Your task to perform on an android device: turn notification dots off Image 0: 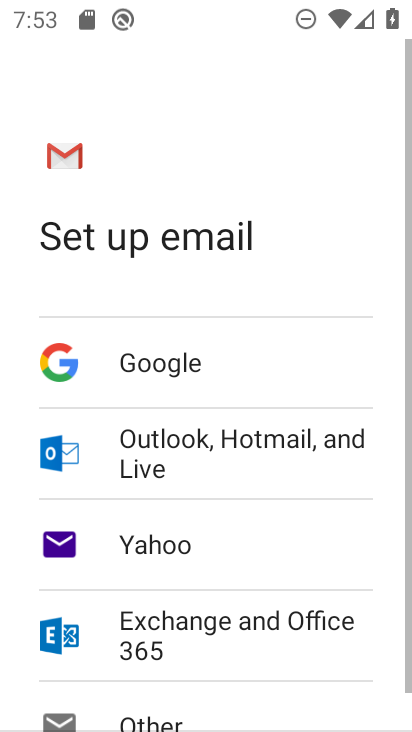
Step 0: press back button
Your task to perform on an android device: turn notification dots off Image 1: 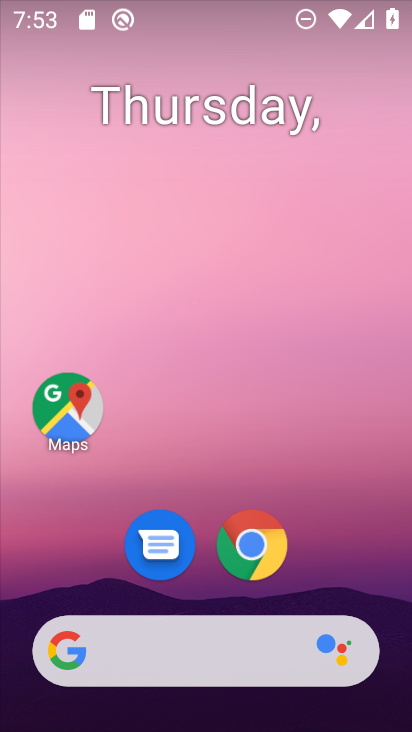
Step 1: drag from (317, 549) to (258, 191)
Your task to perform on an android device: turn notification dots off Image 2: 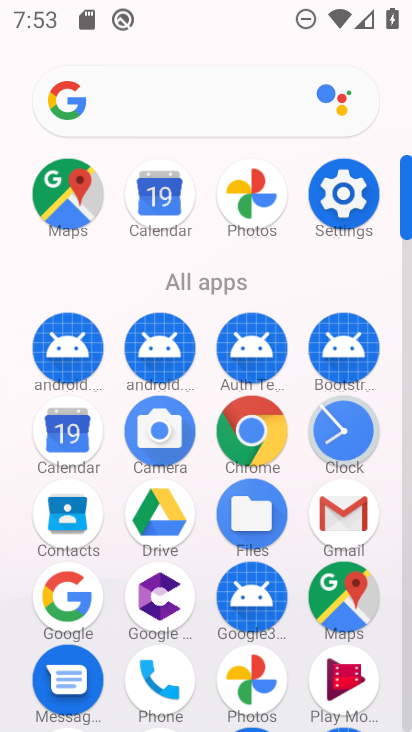
Step 2: click (346, 192)
Your task to perform on an android device: turn notification dots off Image 3: 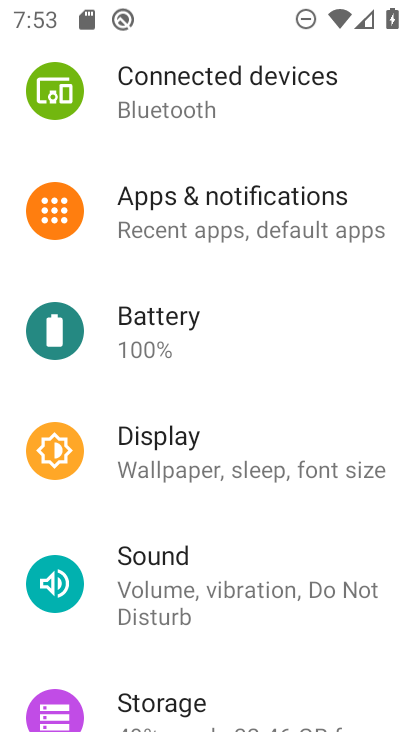
Step 3: click (230, 203)
Your task to perform on an android device: turn notification dots off Image 4: 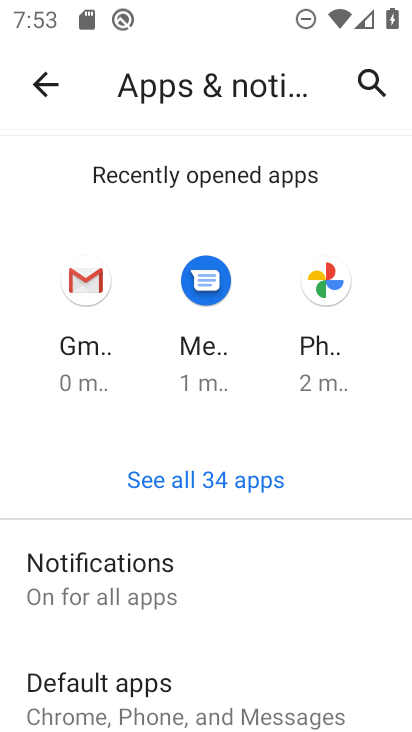
Step 4: click (149, 564)
Your task to perform on an android device: turn notification dots off Image 5: 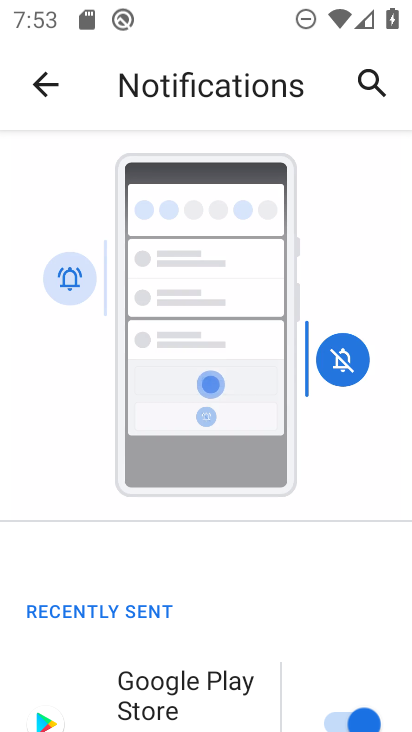
Step 5: drag from (204, 577) to (198, 414)
Your task to perform on an android device: turn notification dots off Image 6: 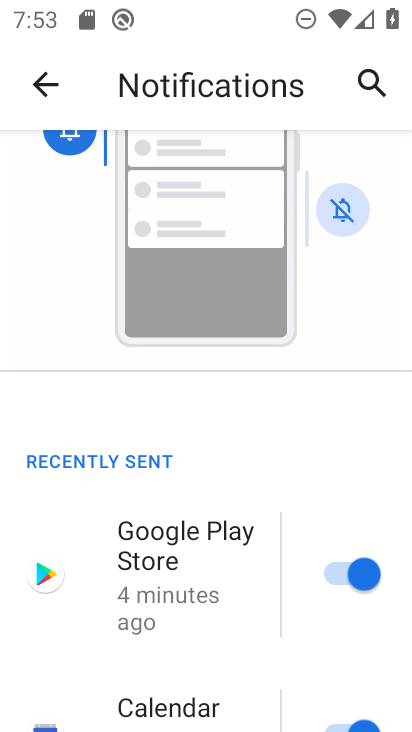
Step 6: drag from (161, 506) to (199, 380)
Your task to perform on an android device: turn notification dots off Image 7: 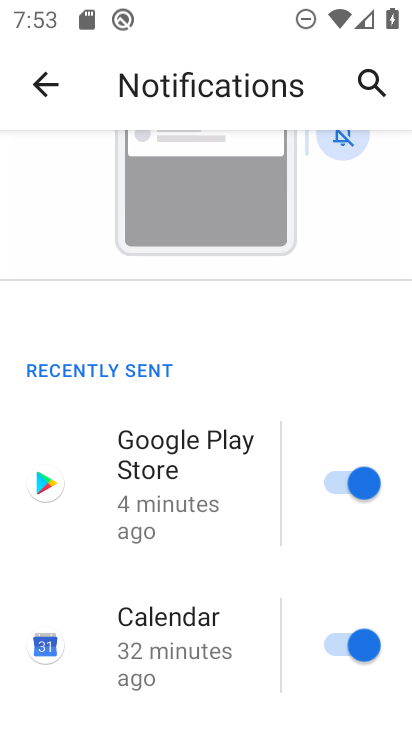
Step 7: drag from (174, 555) to (255, 378)
Your task to perform on an android device: turn notification dots off Image 8: 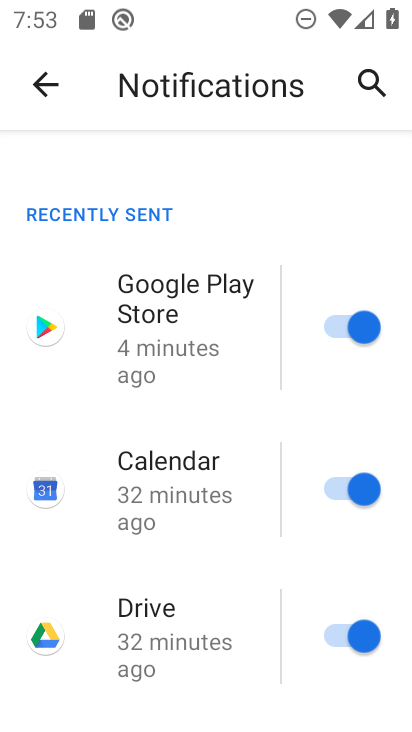
Step 8: drag from (141, 550) to (183, 433)
Your task to perform on an android device: turn notification dots off Image 9: 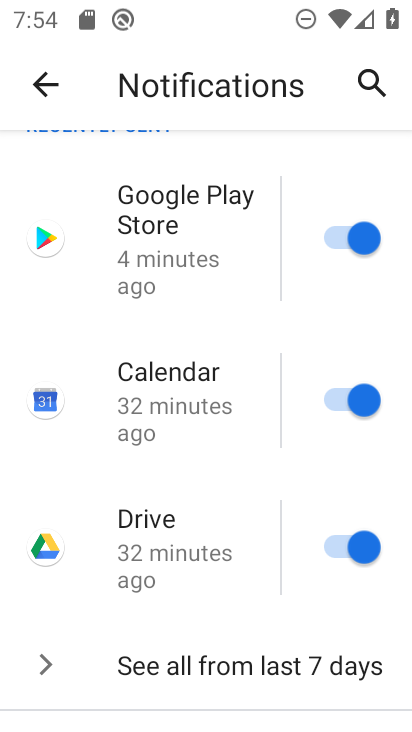
Step 9: drag from (146, 473) to (197, 345)
Your task to perform on an android device: turn notification dots off Image 10: 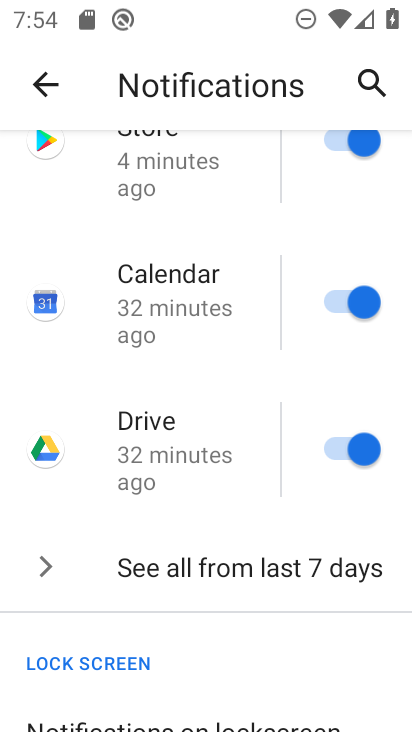
Step 10: drag from (138, 524) to (181, 346)
Your task to perform on an android device: turn notification dots off Image 11: 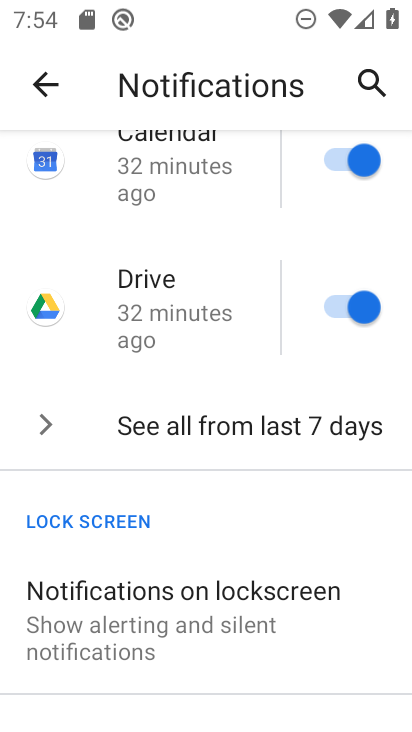
Step 11: drag from (191, 549) to (263, 346)
Your task to perform on an android device: turn notification dots off Image 12: 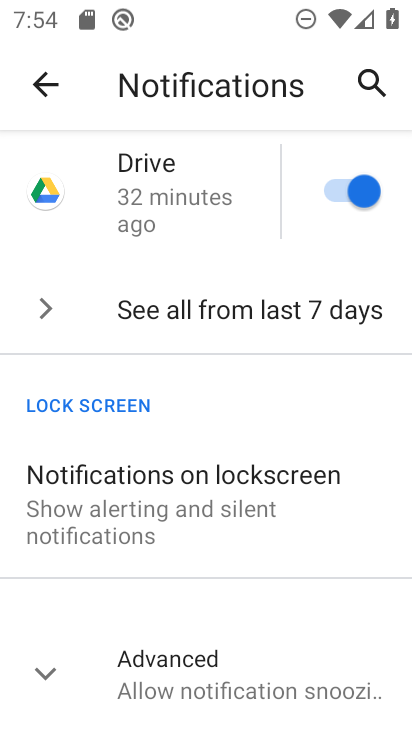
Step 12: click (215, 685)
Your task to perform on an android device: turn notification dots off Image 13: 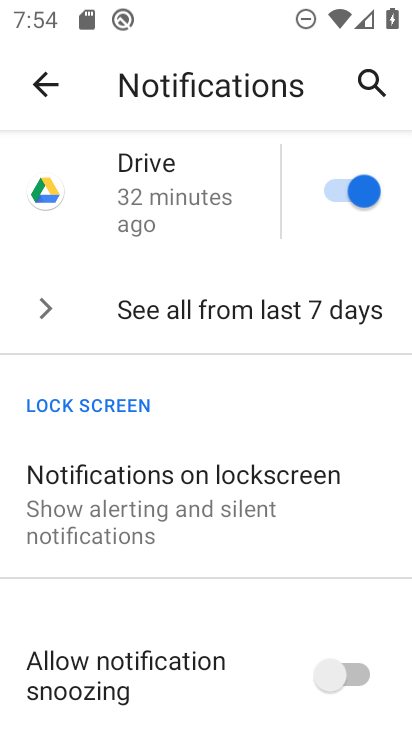
Step 13: drag from (196, 596) to (242, 467)
Your task to perform on an android device: turn notification dots off Image 14: 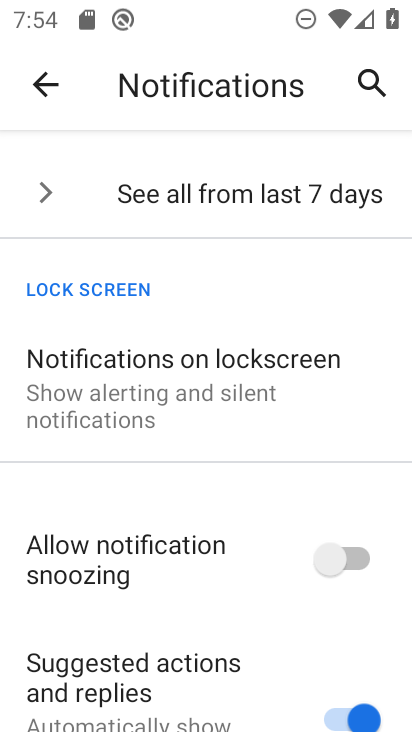
Step 14: drag from (160, 610) to (256, 414)
Your task to perform on an android device: turn notification dots off Image 15: 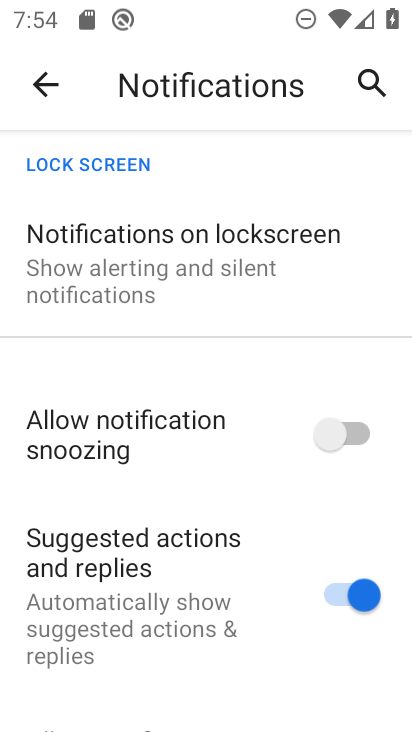
Step 15: drag from (165, 675) to (220, 417)
Your task to perform on an android device: turn notification dots off Image 16: 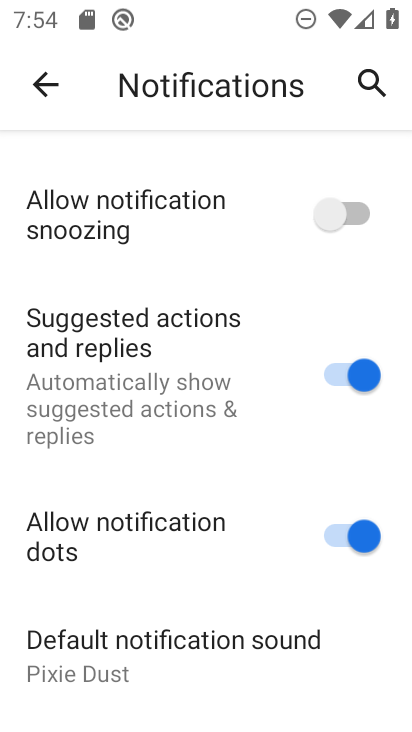
Step 16: click (338, 540)
Your task to perform on an android device: turn notification dots off Image 17: 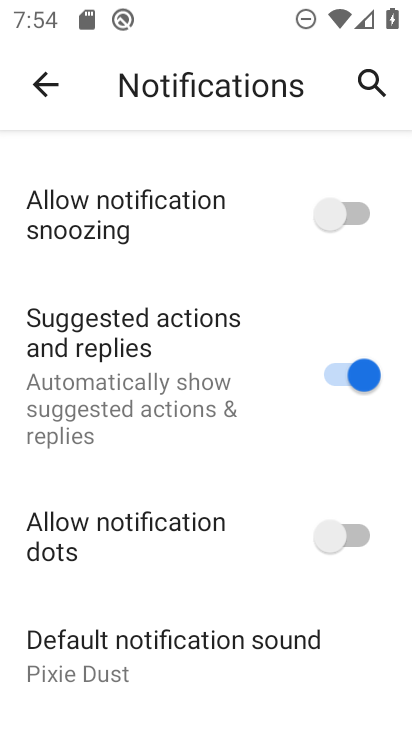
Step 17: task complete